Your task to perform on an android device: check storage Image 0: 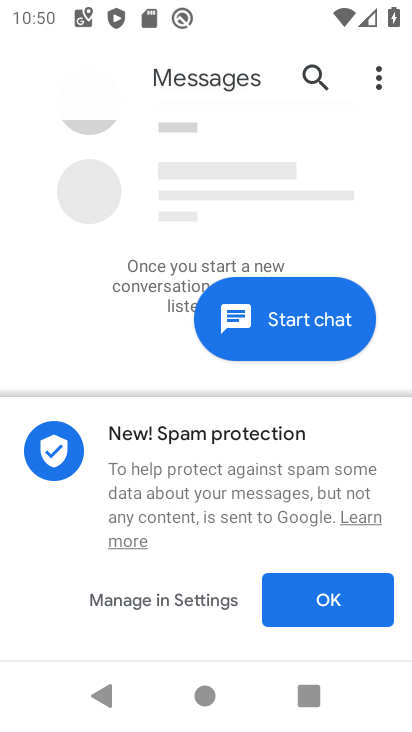
Step 0: press back button
Your task to perform on an android device: check storage Image 1: 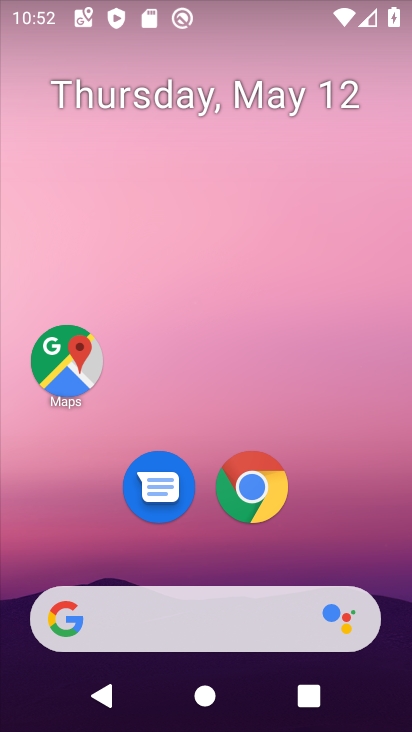
Step 1: drag from (88, 487) to (272, 157)
Your task to perform on an android device: check storage Image 2: 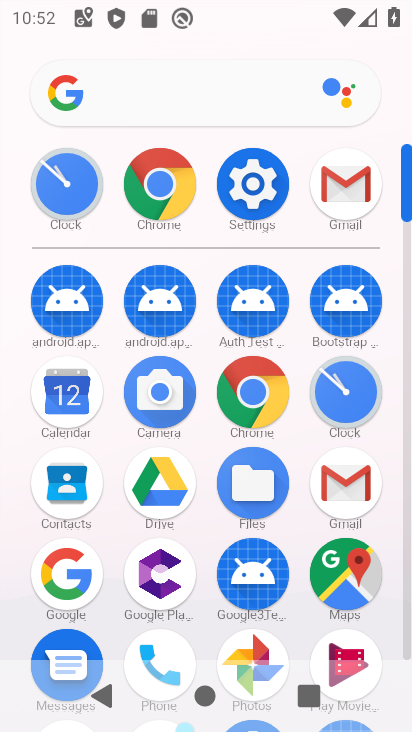
Step 2: click (271, 175)
Your task to perform on an android device: check storage Image 3: 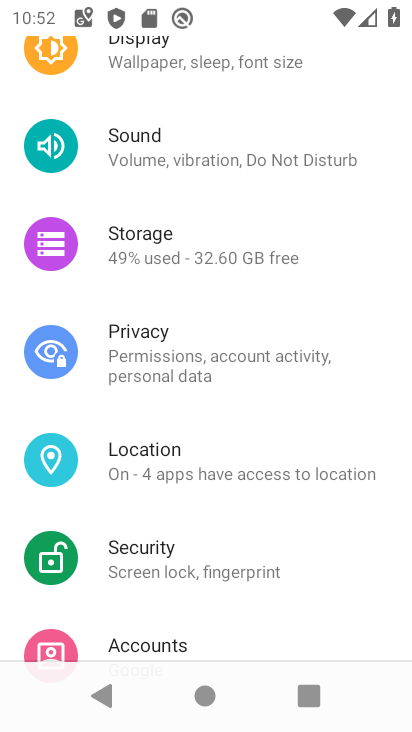
Step 3: click (175, 252)
Your task to perform on an android device: check storage Image 4: 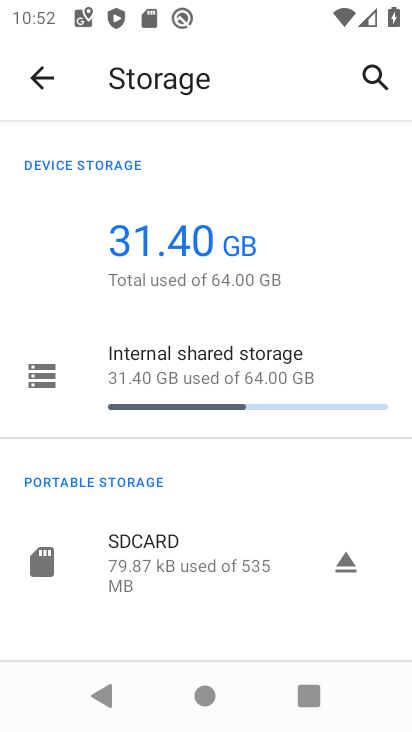
Step 4: task complete